Your task to perform on an android device: Search for seafood restaurants on Google Maps Image 0: 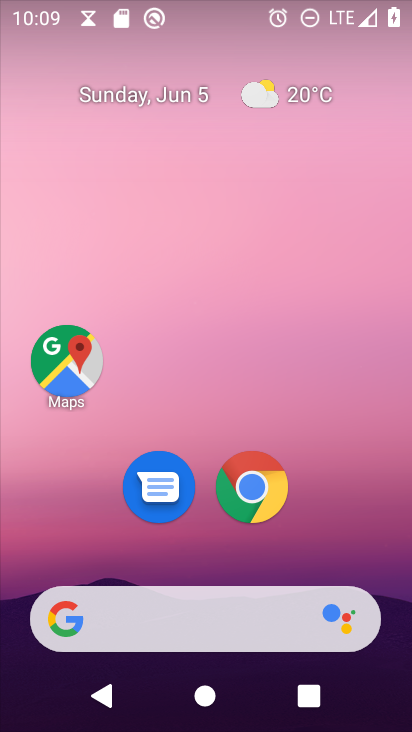
Step 0: click (58, 369)
Your task to perform on an android device: Search for seafood restaurants on Google Maps Image 1: 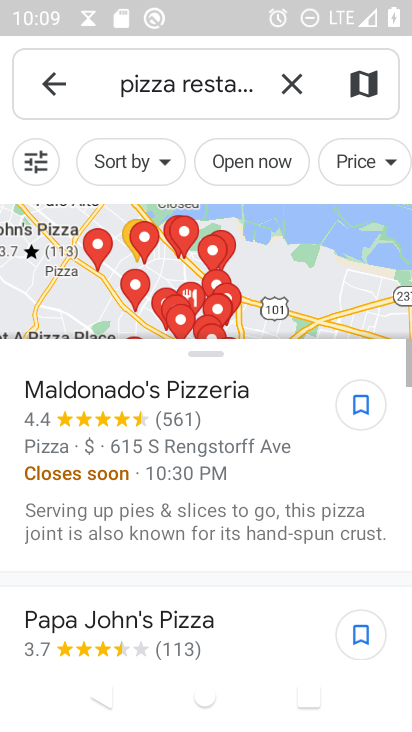
Step 1: click (291, 93)
Your task to perform on an android device: Search for seafood restaurants on Google Maps Image 2: 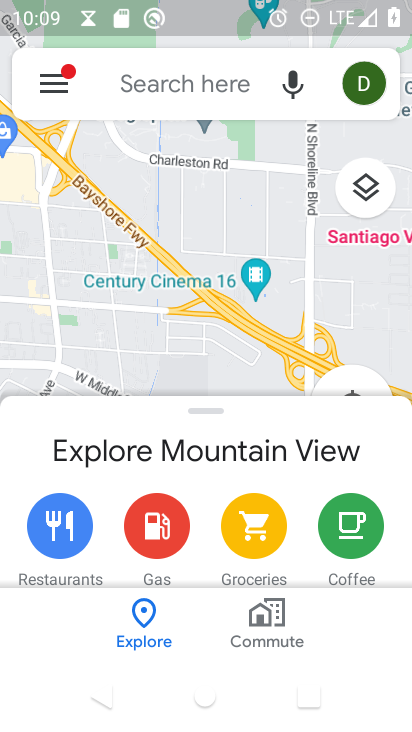
Step 2: click (196, 88)
Your task to perform on an android device: Search for seafood restaurants on Google Maps Image 3: 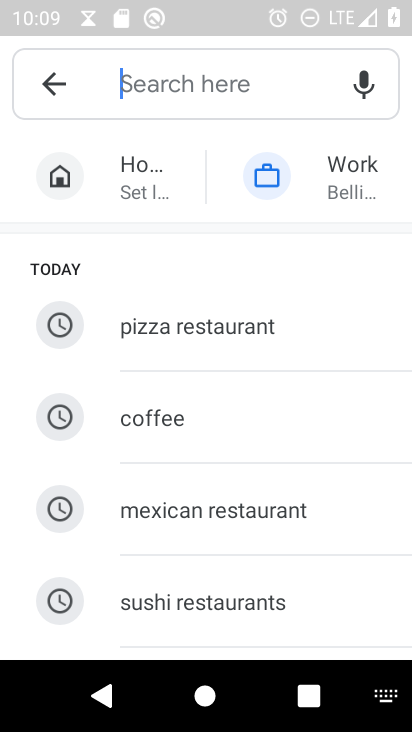
Step 3: drag from (233, 576) to (233, 362)
Your task to perform on an android device: Search for seafood restaurants on Google Maps Image 4: 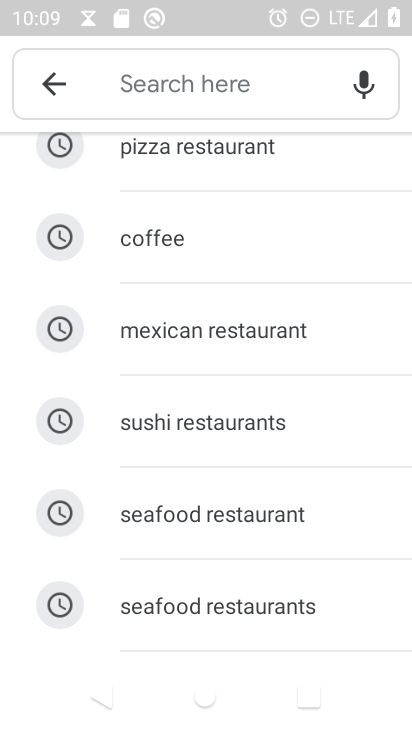
Step 4: click (212, 512)
Your task to perform on an android device: Search for seafood restaurants on Google Maps Image 5: 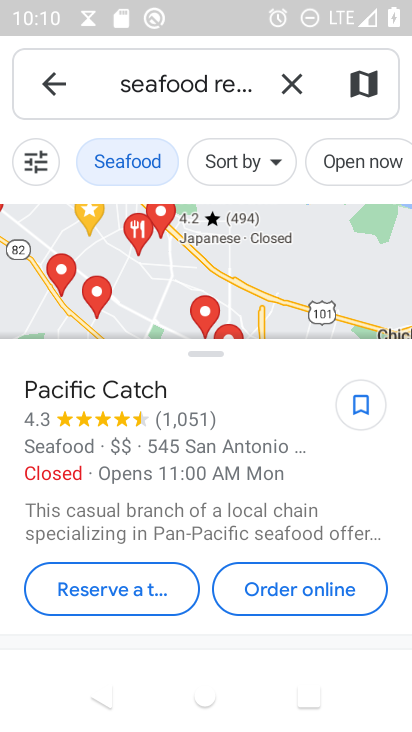
Step 5: task complete